Your task to perform on an android device: add a contact Image 0: 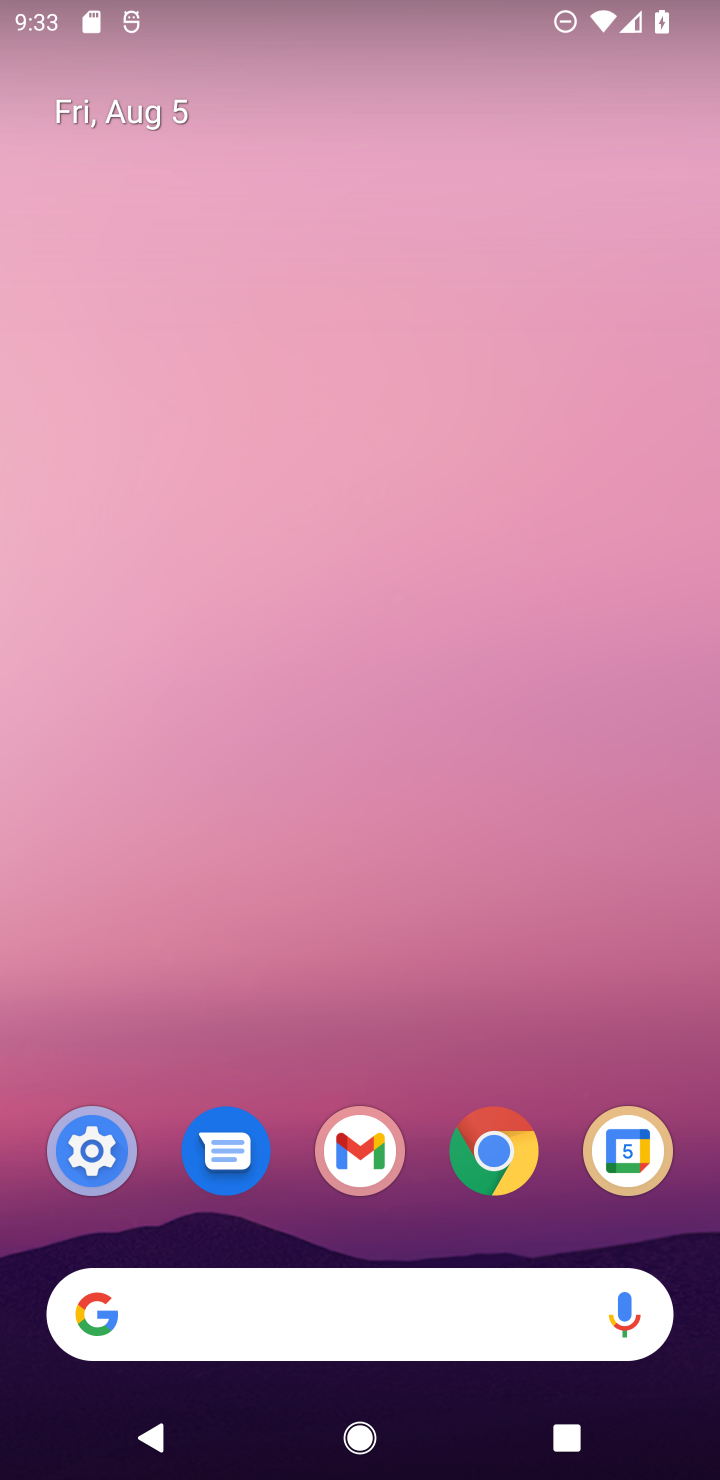
Step 0: drag from (270, 1073) to (407, 44)
Your task to perform on an android device: add a contact Image 1: 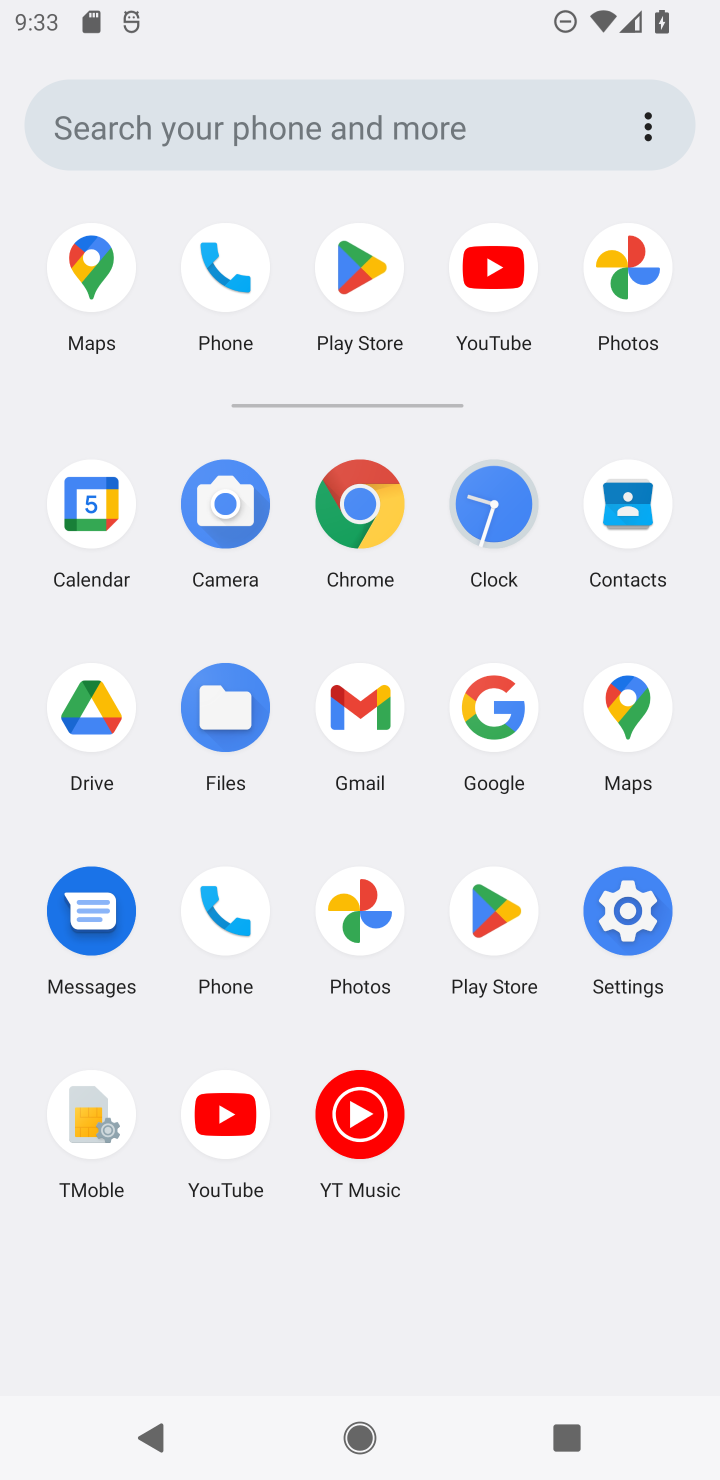
Step 1: click (621, 525)
Your task to perform on an android device: add a contact Image 2: 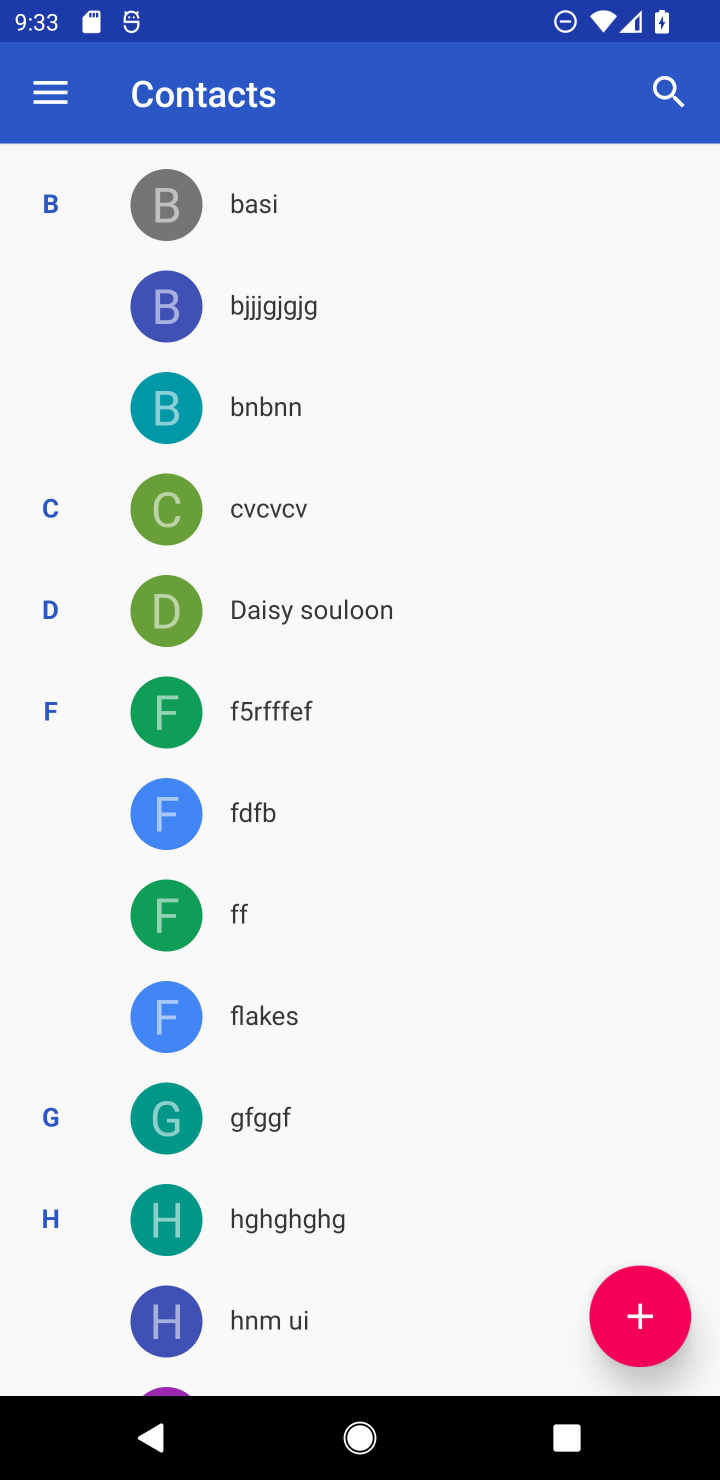
Step 2: click (633, 1306)
Your task to perform on an android device: add a contact Image 3: 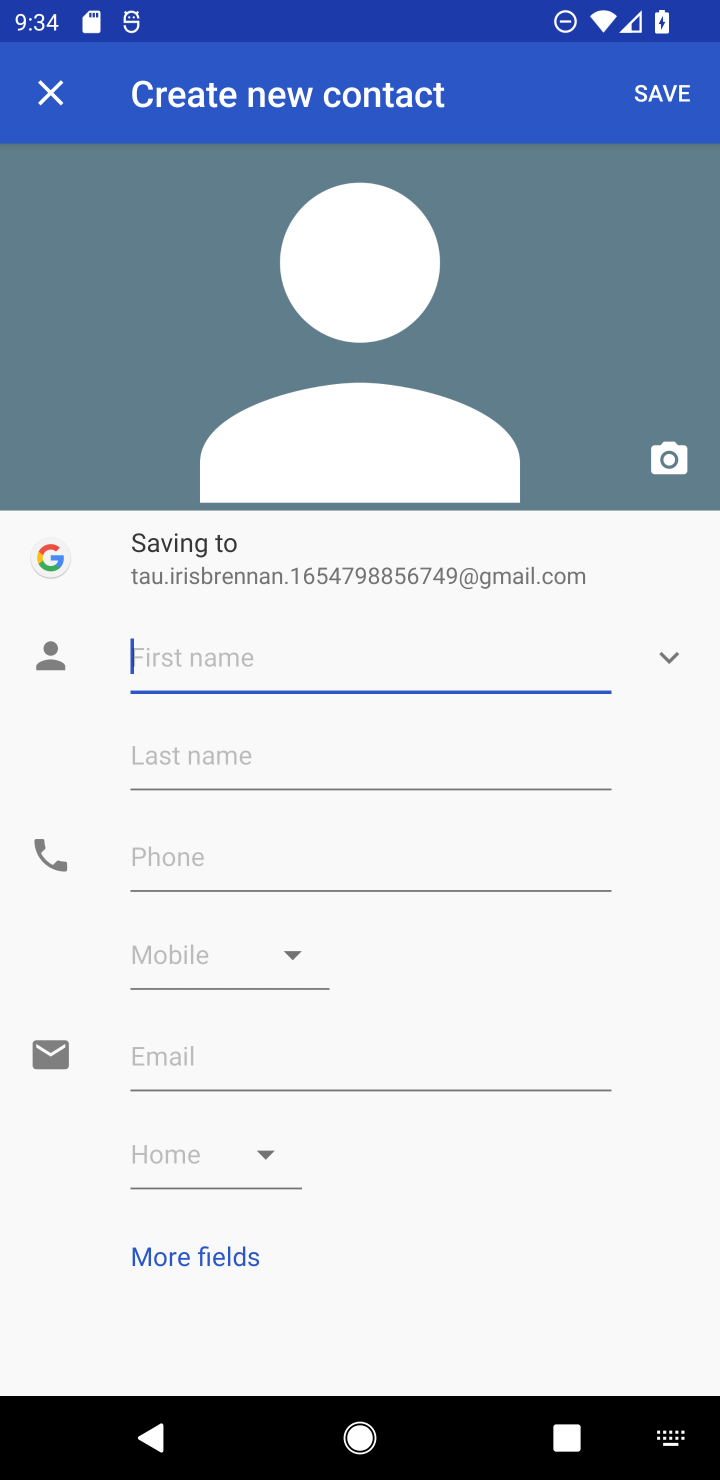
Step 3: type "Narendra"
Your task to perform on an android device: add a contact Image 4: 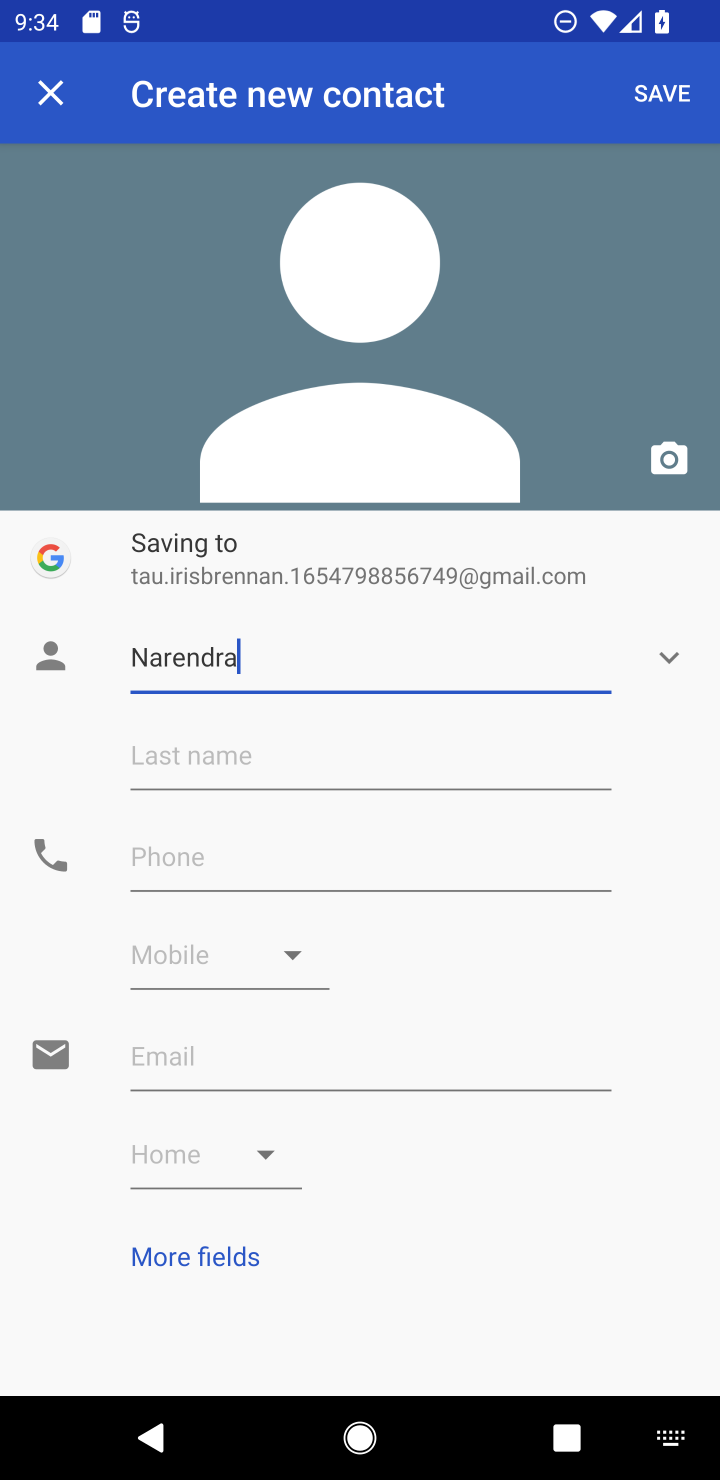
Step 4: click (414, 754)
Your task to perform on an android device: add a contact Image 5: 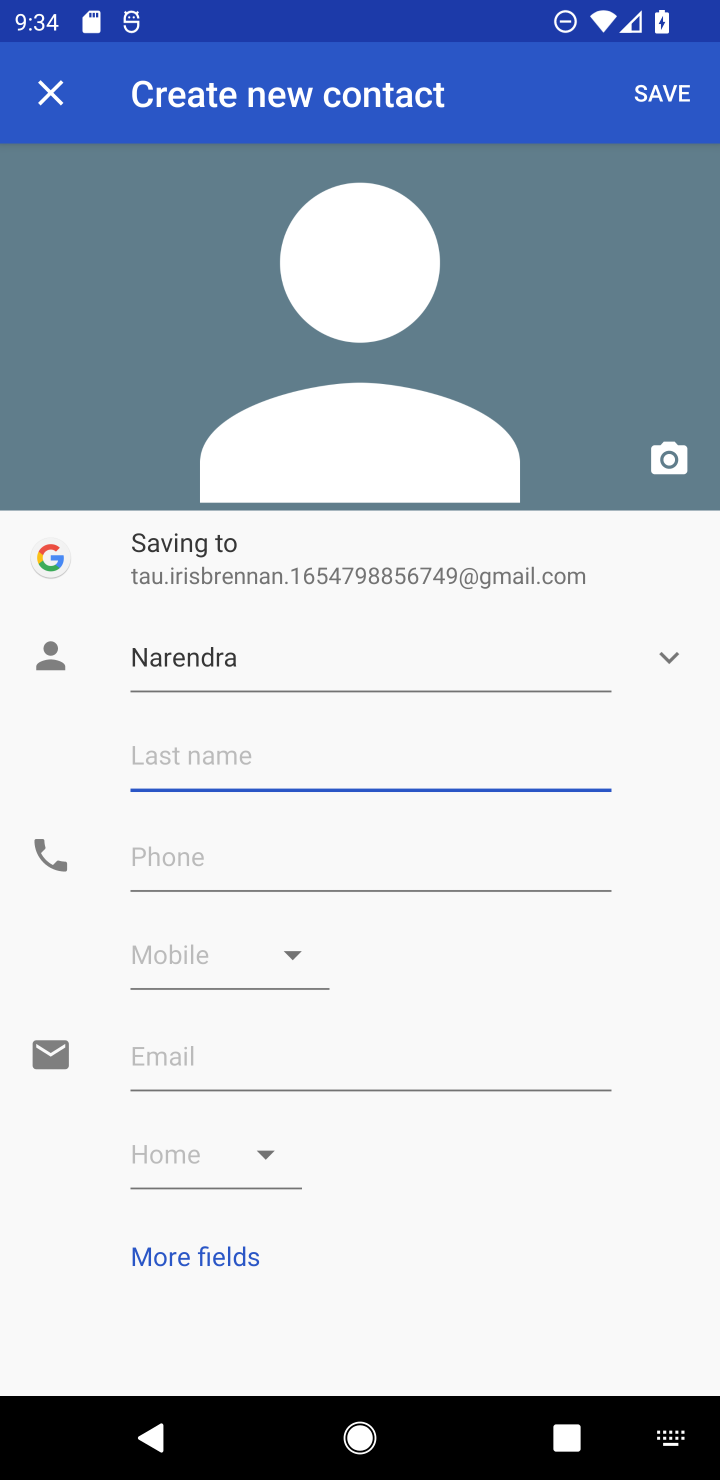
Step 5: type "Modi"
Your task to perform on an android device: add a contact Image 6: 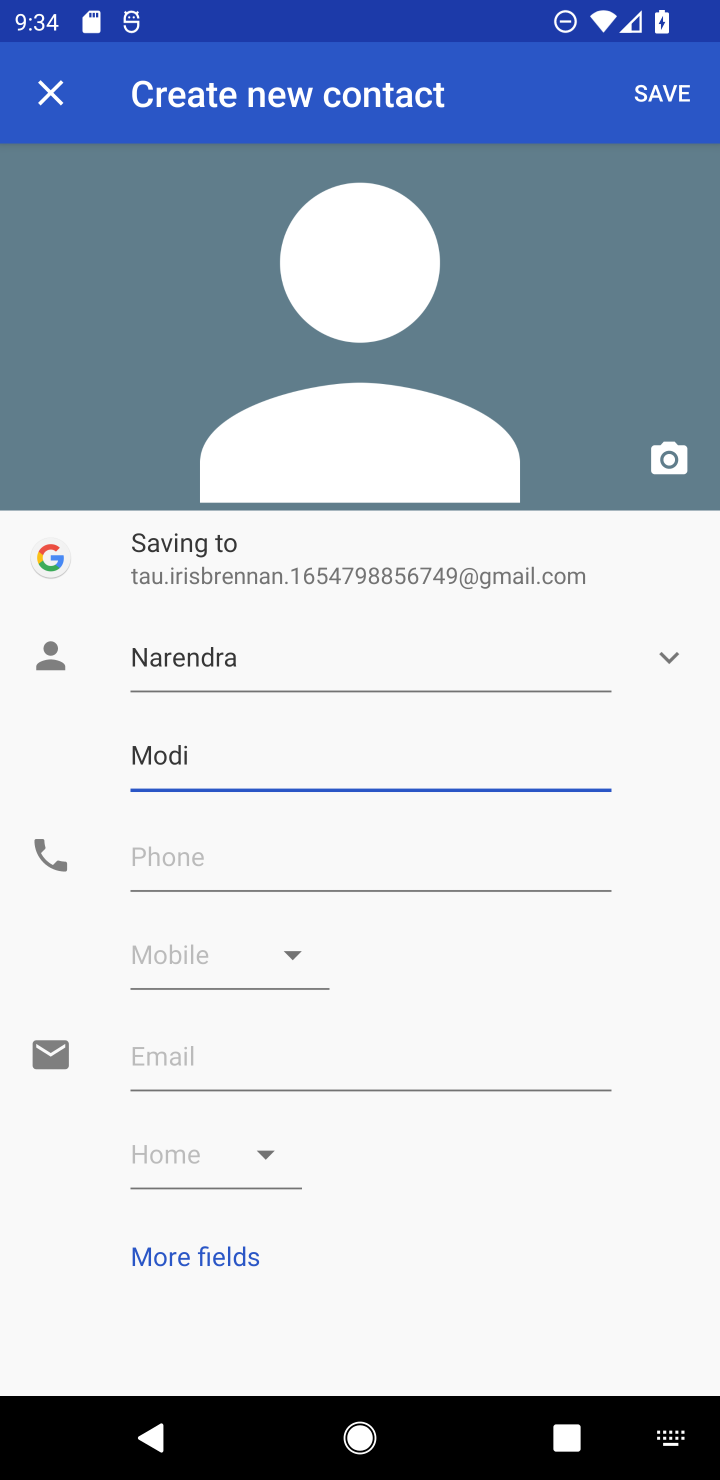
Step 6: click (248, 835)
Your task to perform on an android device: add a contact Image 7: 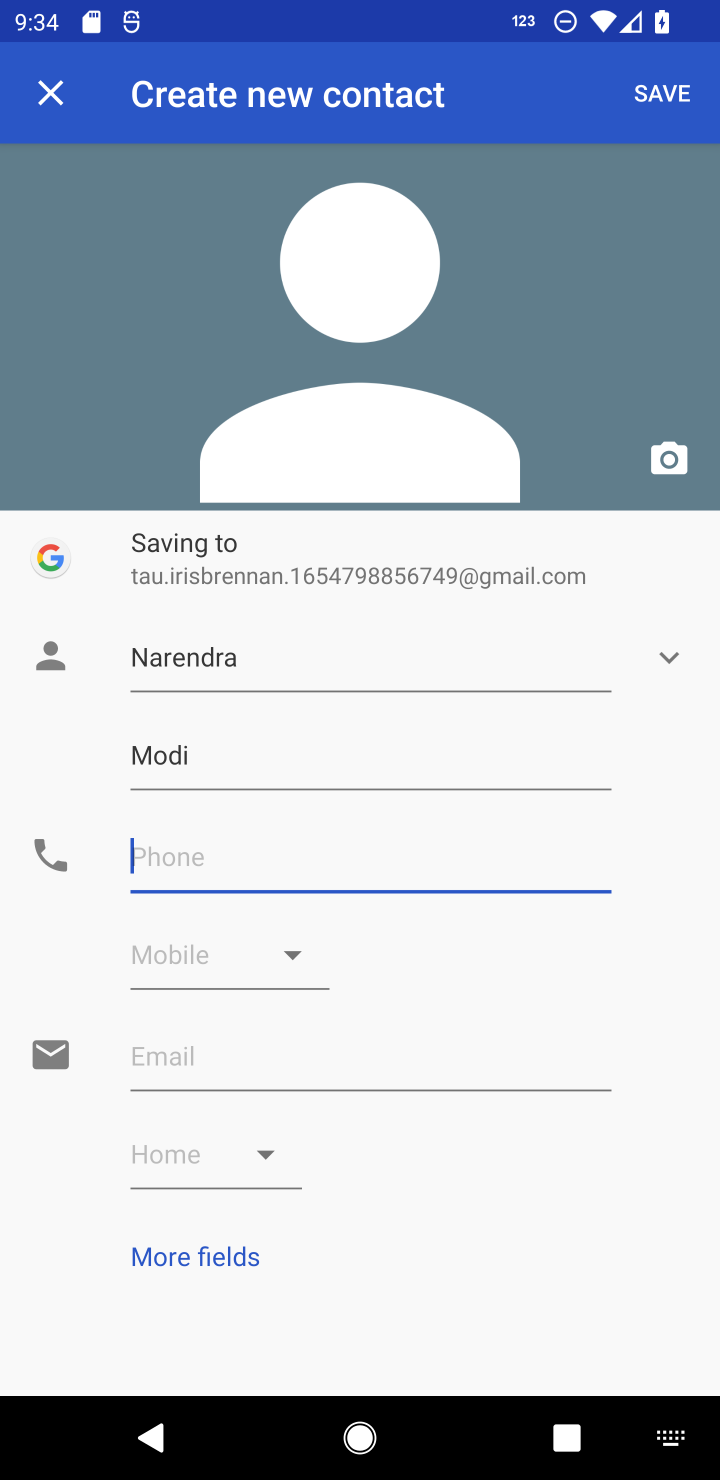
Step 7: type "8900988989"
Your task to perform on an android device: add a contact Image 8: 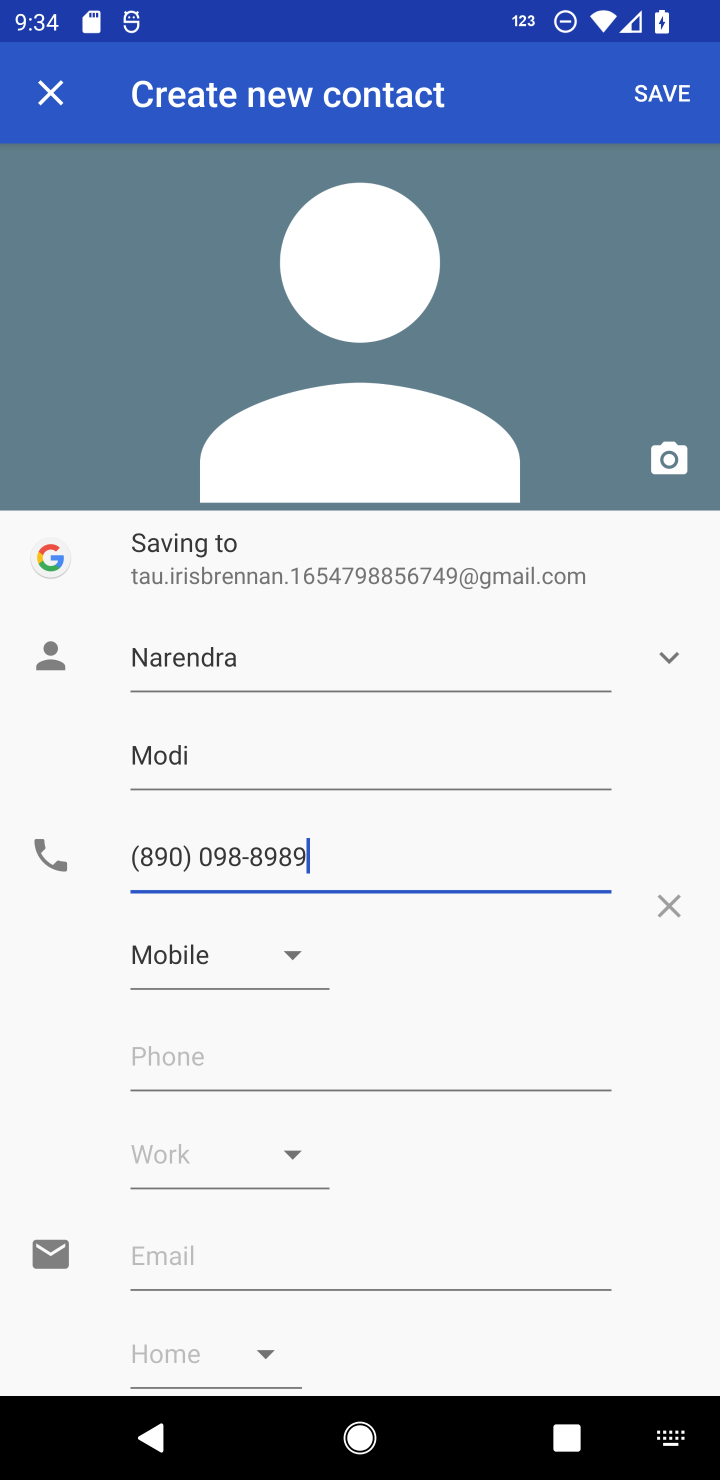
Step 8: click (694, 96)
Your task to perform on an android device: add a contact Image 9: 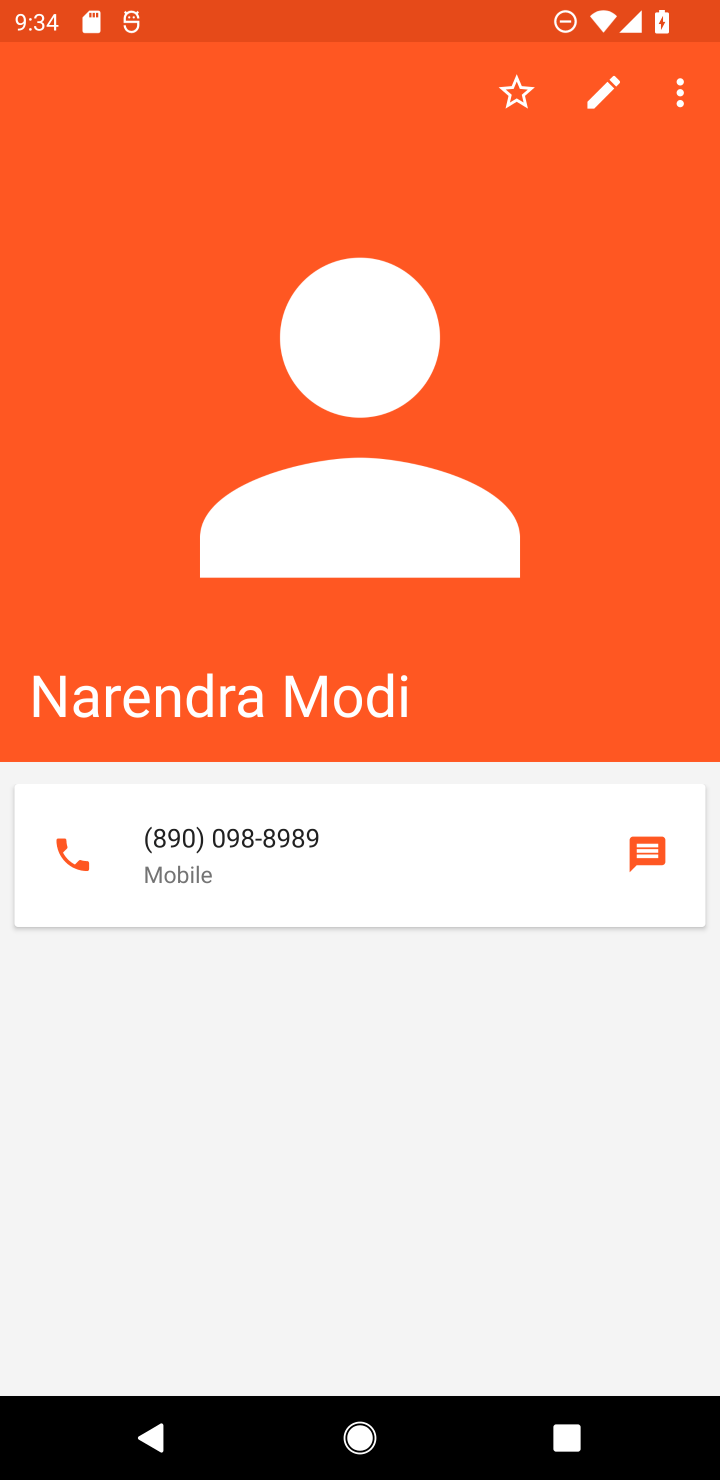
Step 9: task complete